Your task to perform on an android device: open a new tab in the chrome app Image 0: 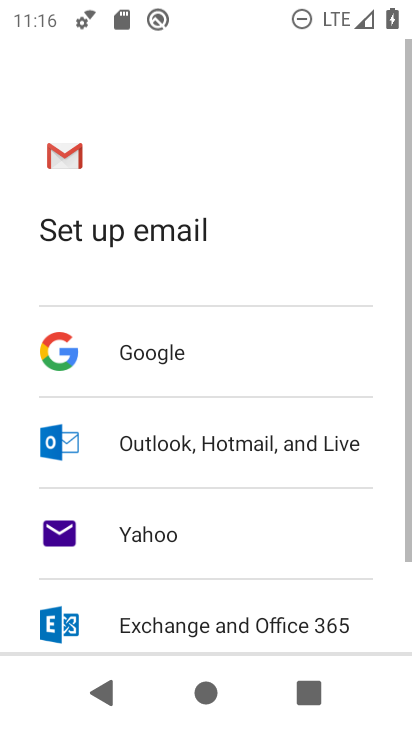
Step 0: press back button
Your task to perform on an android device: open a new tab in the chrome app Image 1: 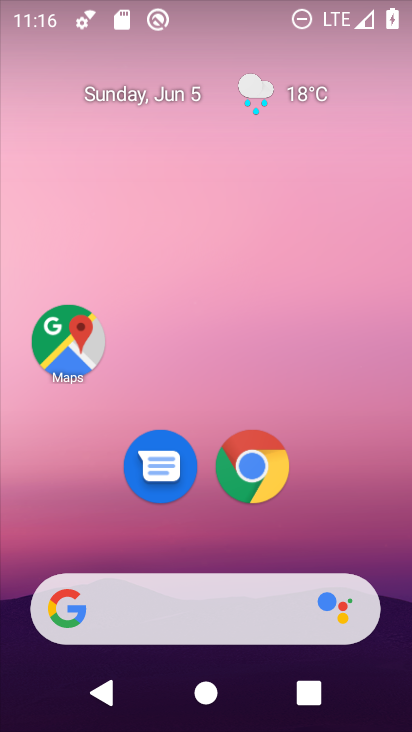
Step 1: drag from (355, 512) to (269, 14)
Your task to perform on an android device: open a new tab in the chrome app Image 2: 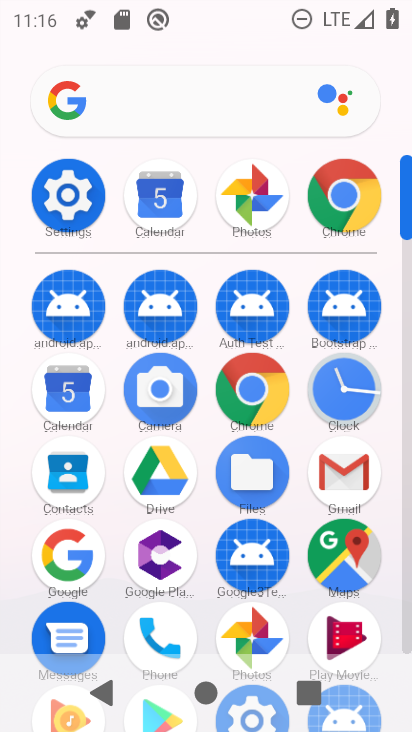
Step 2: click (249, 381)
Your task to perform on an android device: open a new tab in the chrome app Image 3: 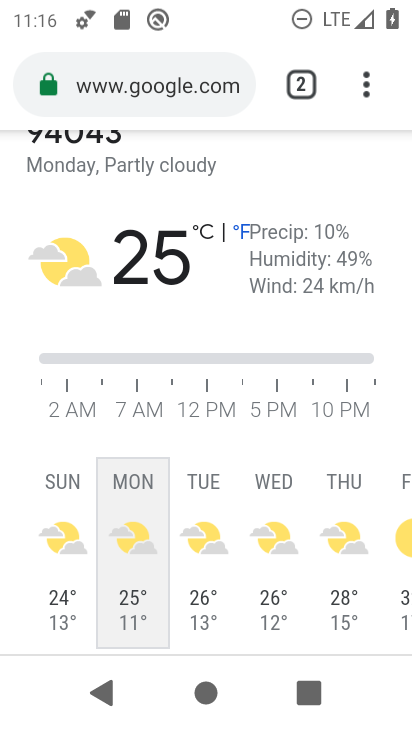
Step 3: task complete